Your task to perform on an android device: open sync settings in chrome Image 0: 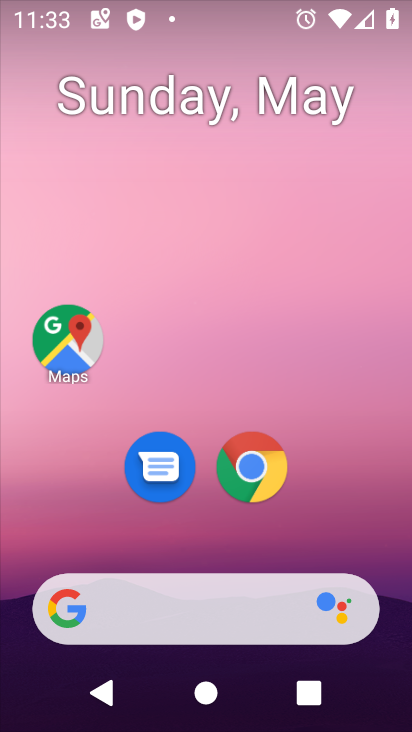
Step 0: click (257, 469)
Your task to perform on an android device: open sync settings in chrome Image 1: 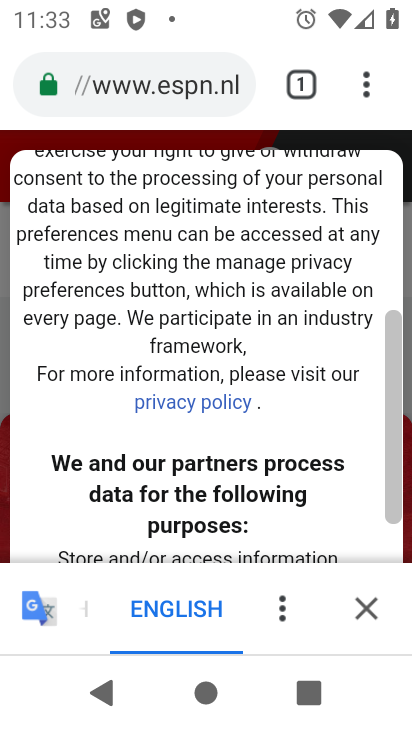
Step 1: click (366, 76)
Your task to perform on an android device: open sync settings in chrome Image 2: 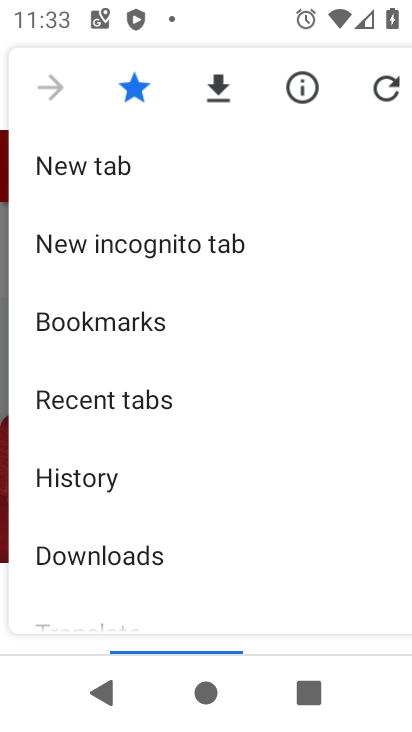
Step 2: drag from (254, 543) to (249, 132)
Your task to perform on an android device: open sync settings in chrome Image 3: 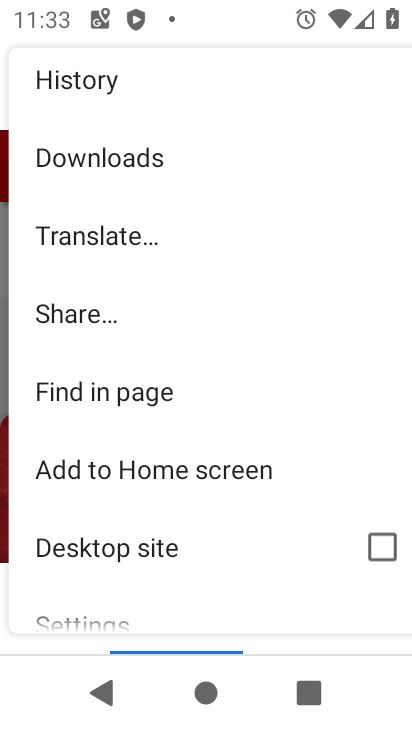
Step 3: drag from (245, 516) to (230, 171)
Your task to perform on an android device: open sync settings in chrome Image 4: 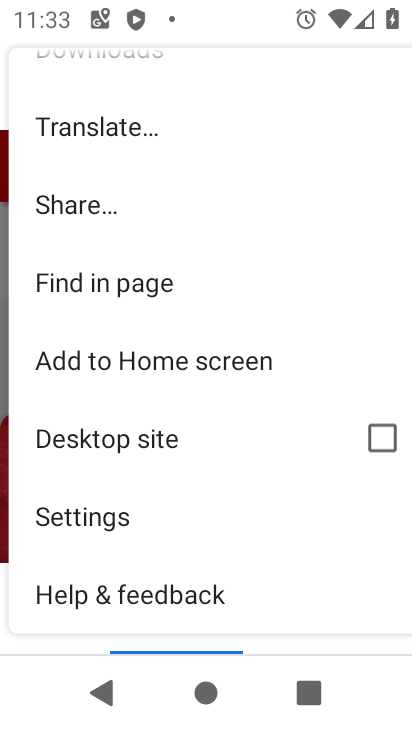
Step 4: click (55, 511)
Your task to perform on an android device: open sync settings in chrome Image 5: 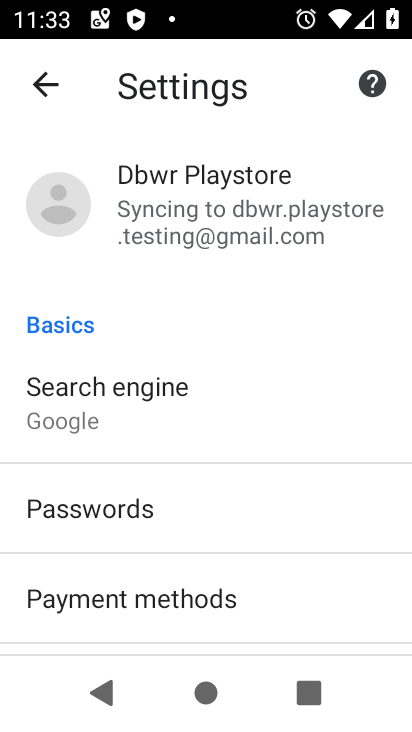
Step 5: click (173, 235)
Your task to perform on an android device: open sync settings in chrome Image 6: 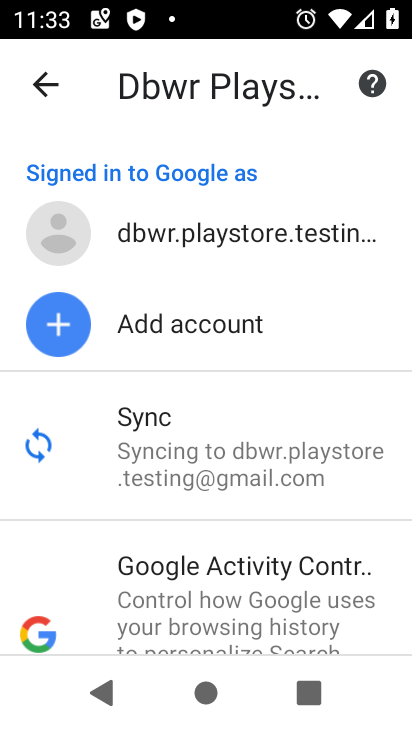
Step 6: click (174, 466)
Your task to perform on an android device: open sync settings in chrome Image 7: 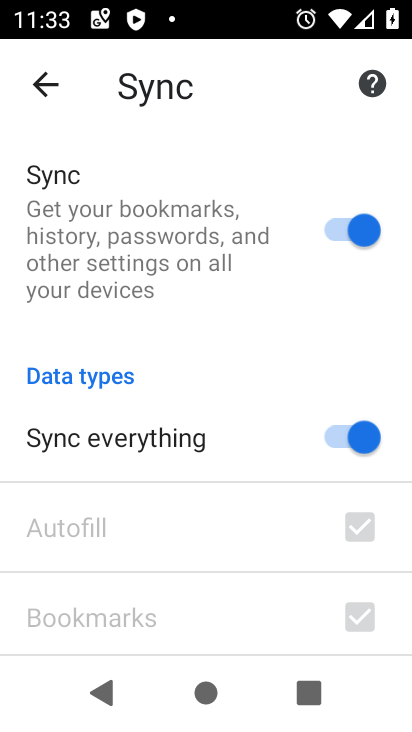
Step 7: task complete